Your task to perform on an android device: empty trash in the gmail app Image 0: 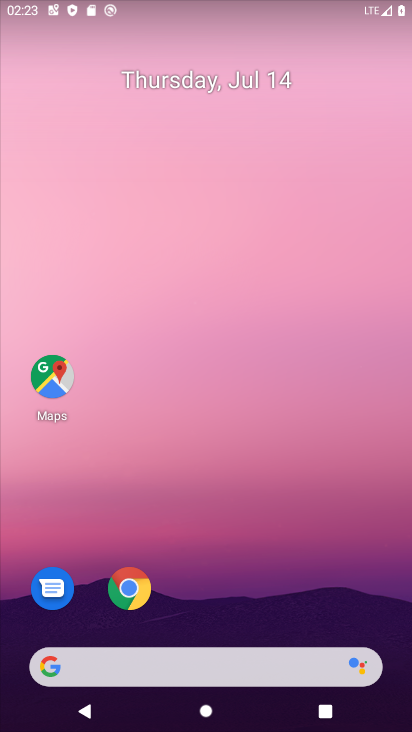
Step 0: drag from (159, 690) to (237, 233)
Your task to perform on an android device: empty trash in the gmail app Image 1: 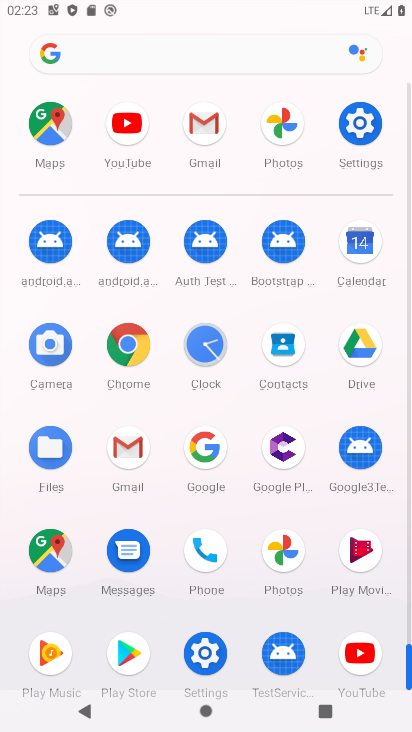
Step 1: click (204, 130)
Your task to perform on an android device: empty trash in the gmail app Image 2: 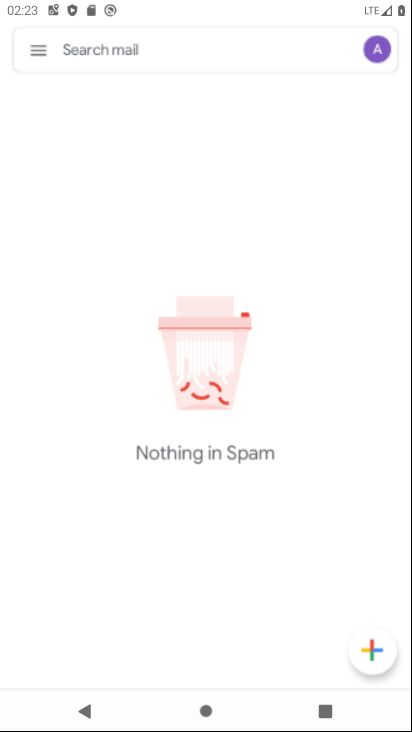
Step 2: click (38, 43)
Your task to perform on an android device: empty trash in the gmail app Image 3: 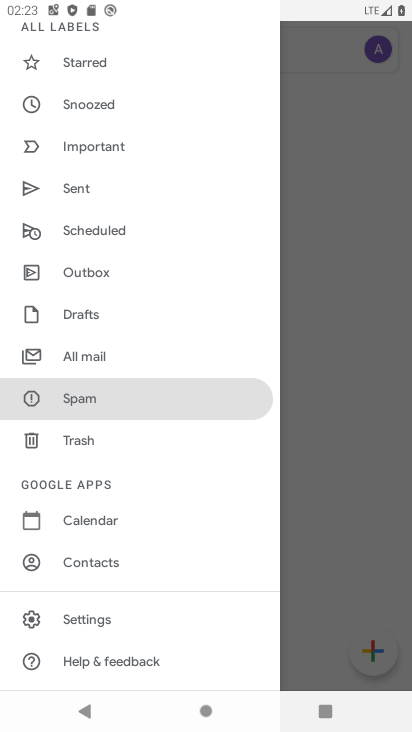
Step 3: click (89, 441)
Your task to perform on an android device: empty trash in the gmail app Image 4: 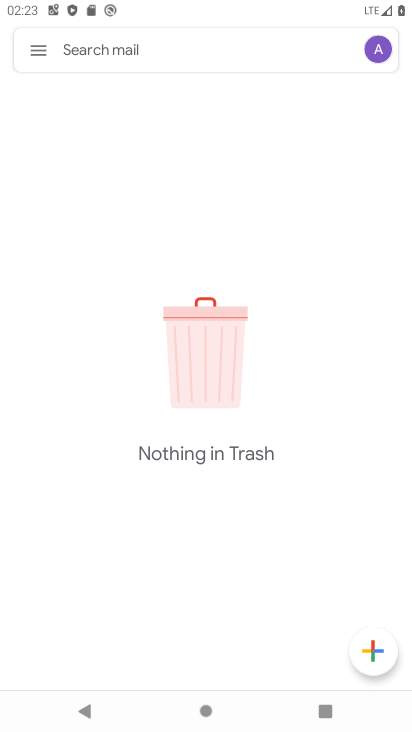
Step 4: task complete